Your task to perform on an android device: all mails in gmail Image 0: 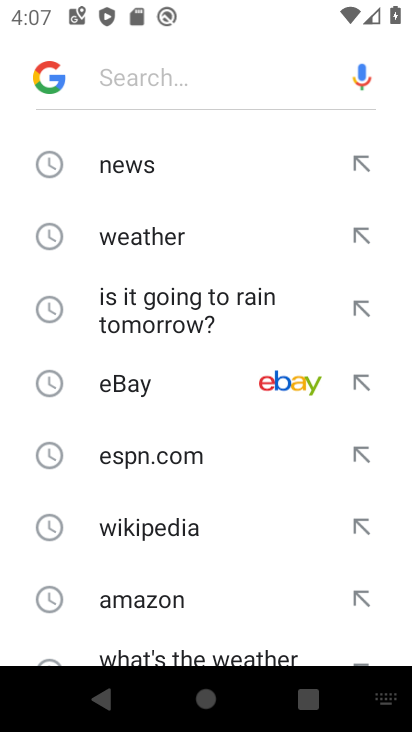
Step 0: press home button
Your task to perform on an android device: all mails in gmail Image 1: 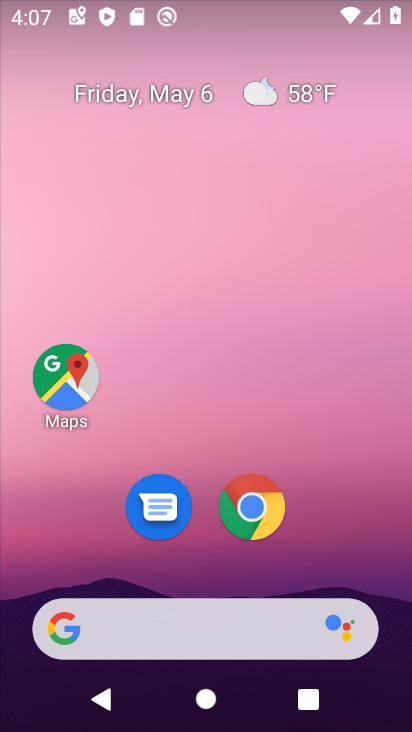
Step 1: drag from (338, 550) to (295, 156)
Your task to perform on an android device: all mails in gmail Image 2: 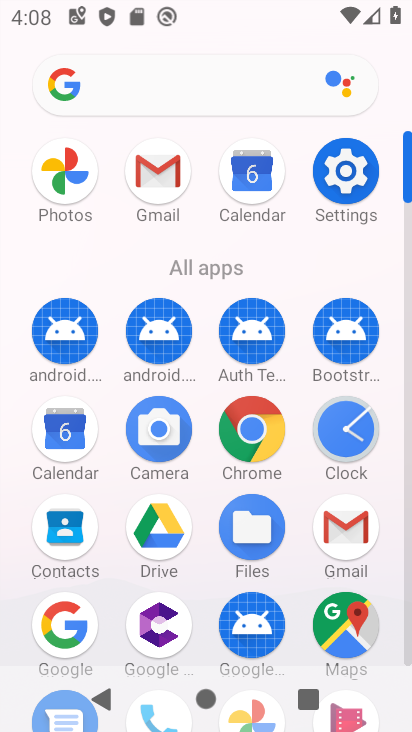
Step 2: click (156, 166)
Your task to perform on an android device: all mails in gmail Image 3: 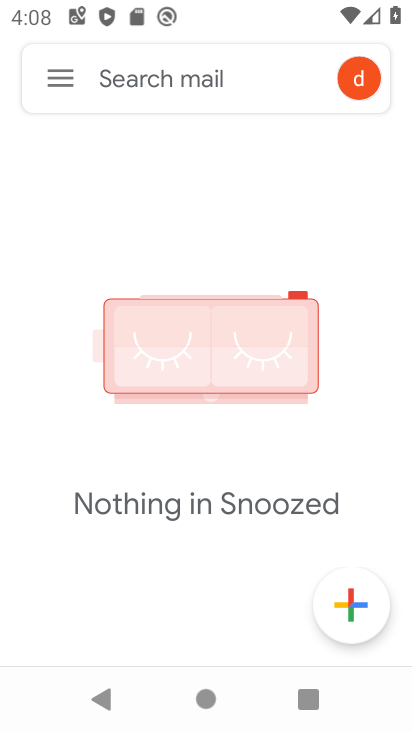
Step 3: click (61, 79)
Your task to perform on an android device: all mails in gmail Image 4: 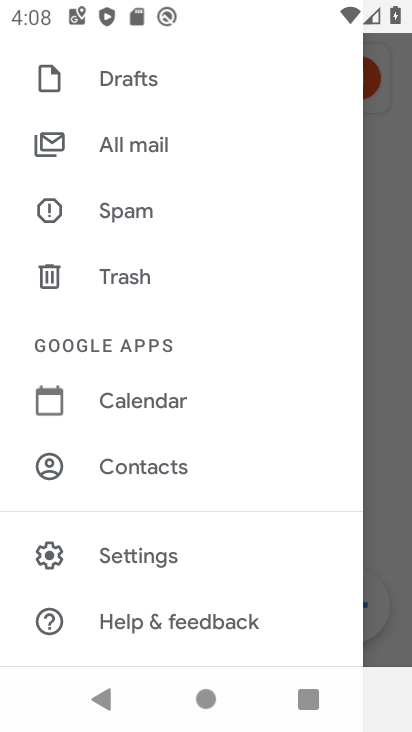
Step 4: click (207, 160)
Your task to perform on an android device: all mails in gmail Image 5: 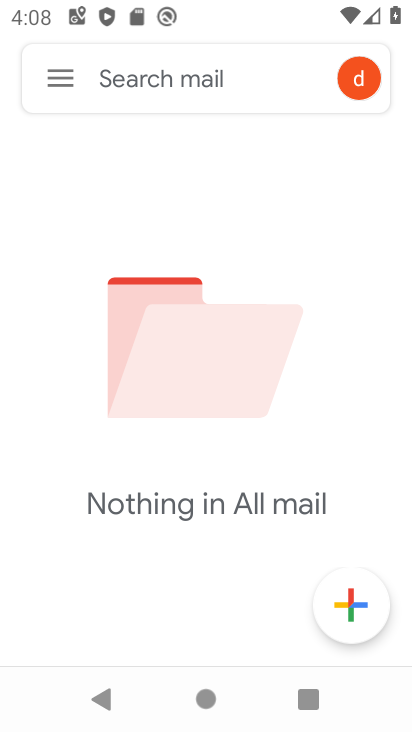
Step 5: task complete